Your task to perform on an android device: Go to settings Image 0: 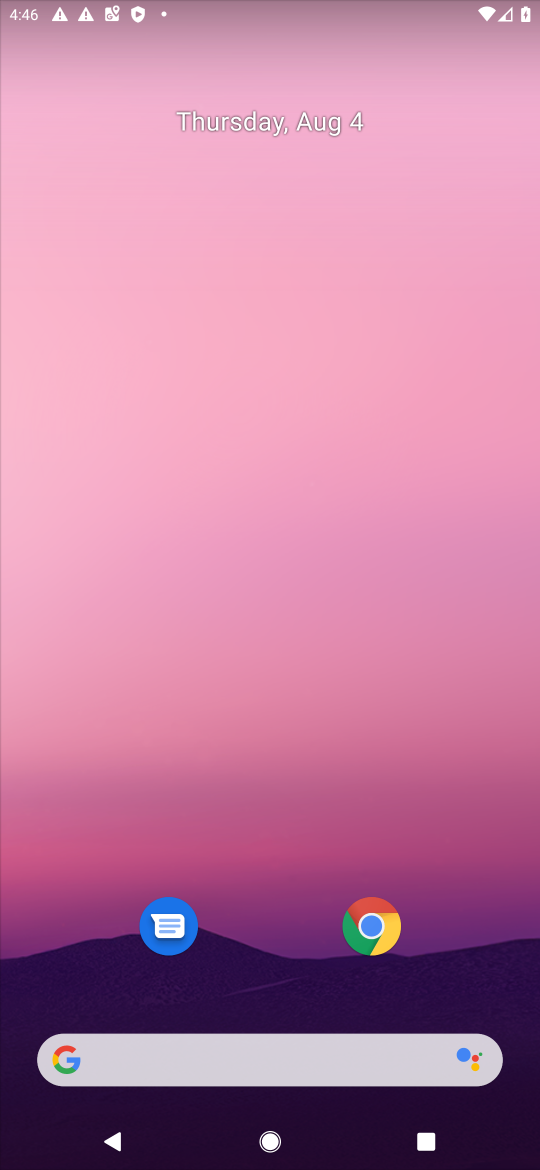
Step 0: click (452, 259)
Your task to perform on an android device: Go to settings Image 1: 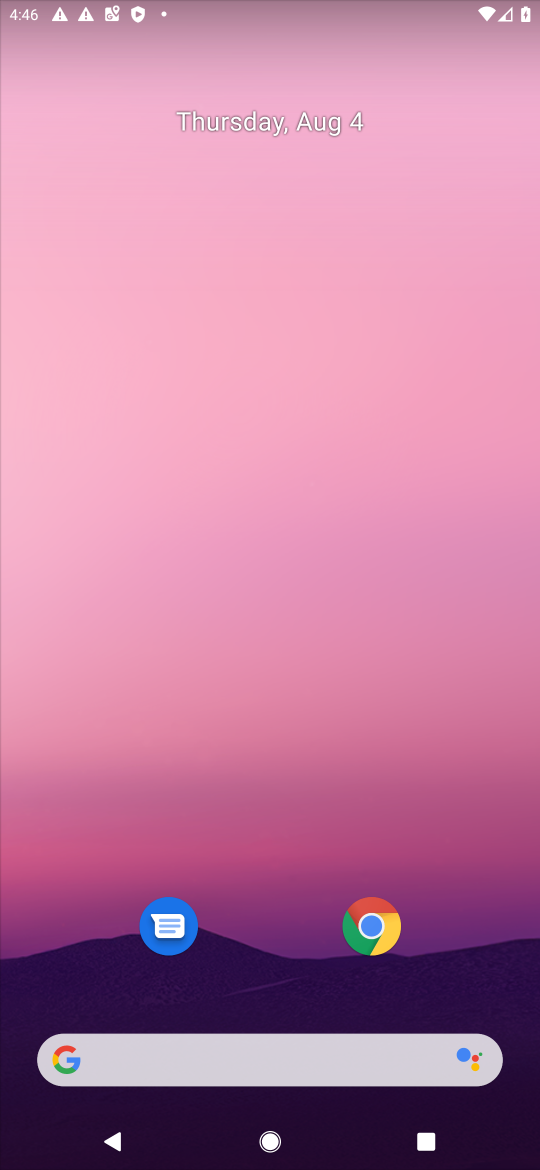
Step 1: drag from (247, 993) to (454, 376)
Your task to perform on an android device: Go to settings Image 2: 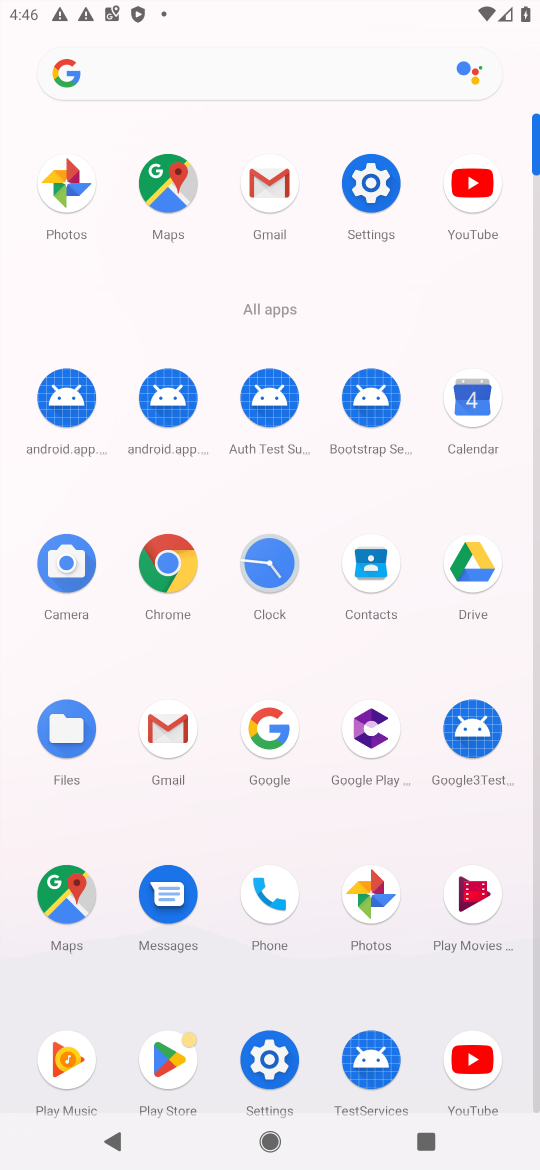
Step 2: click (271, 1068)
Your task to perform on an android device: Go to settings Image 3: 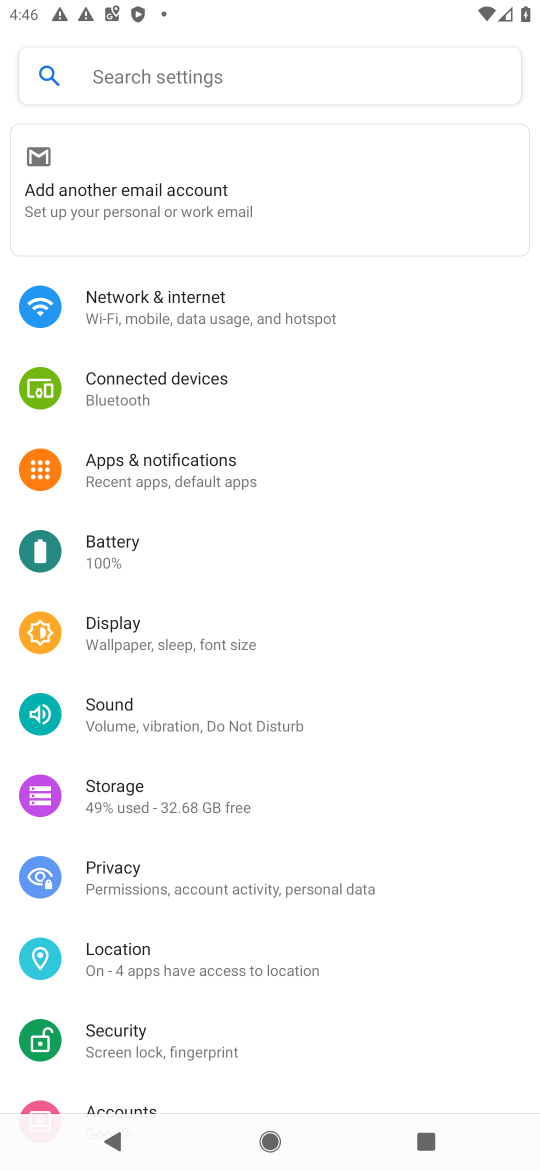
Step 3: task complete